Your task to perform on an android device: turn pop-ups off in chrome Image 0: 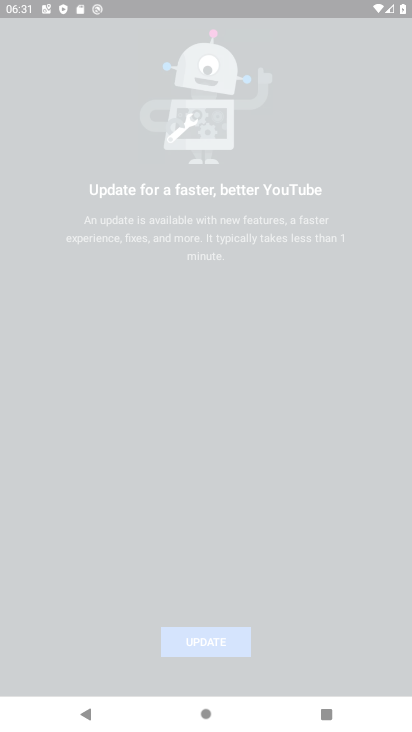
Step 0: click (52, 393)
Your task to perform on an android device: turn pop-ups off in chrome Image 1: 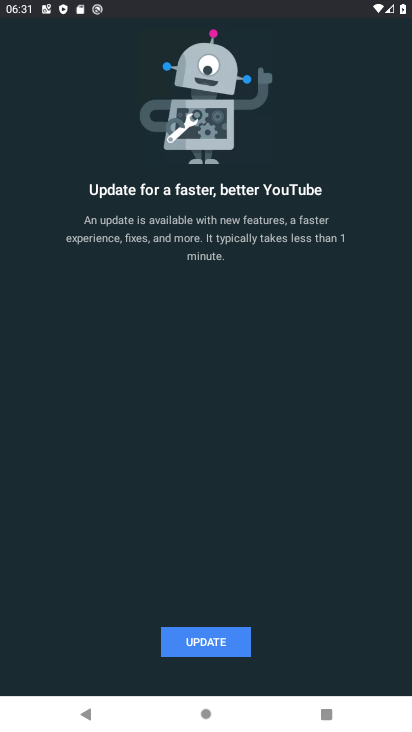
Step 1: press back button
Your task to perform on an android device: turn pop-ups off in chrome Image 2: 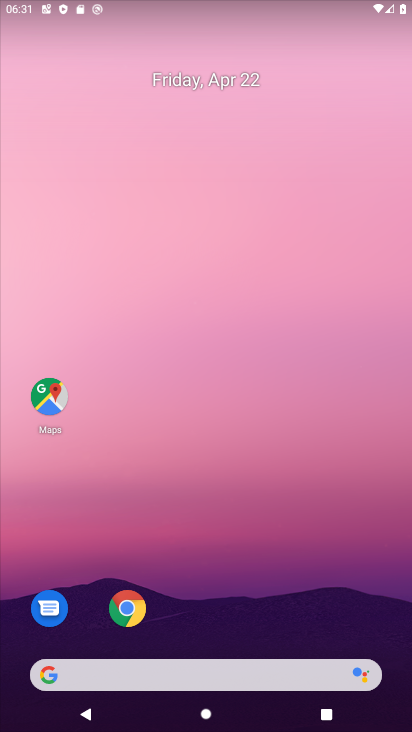
Step 2: click (137, 615)
Your task to perform on an android device: turn pop-ups off in chrome Image 3: 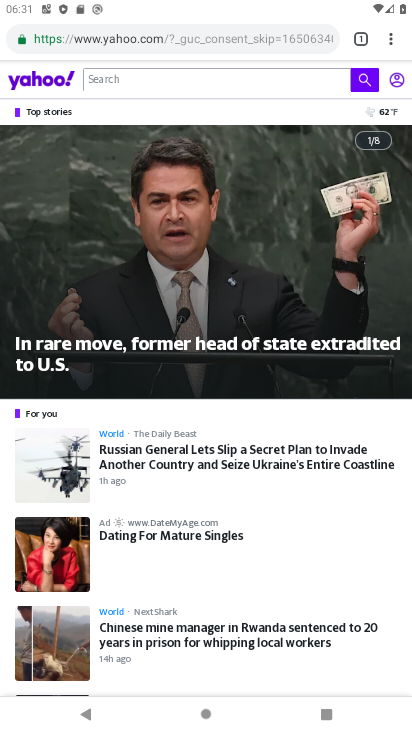
Step 3: click (391, 37)
Your task to perform on an android device: turn pop-ups off in chrome Image 4: 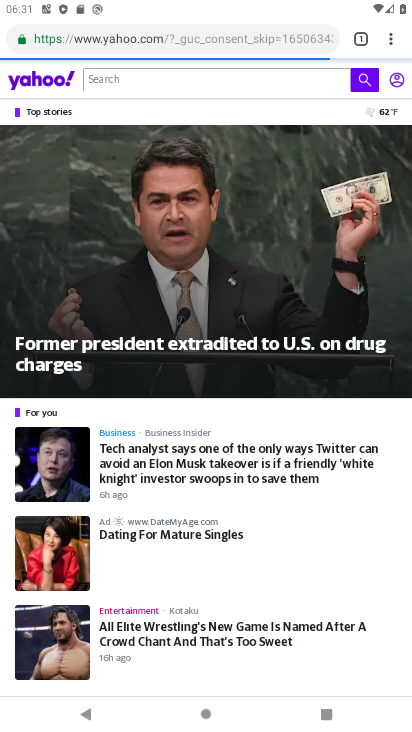
Step 4: click (388, 40)
Your task to perform on an android device: turn pop-ups off in chrome Image 5: 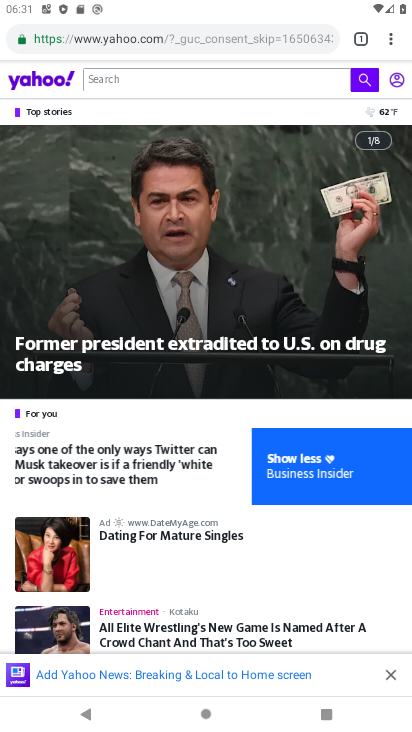
Step 5: click (392, 38)
Your task to perform on an android device: turn pop-ups off in chrome Image 6: 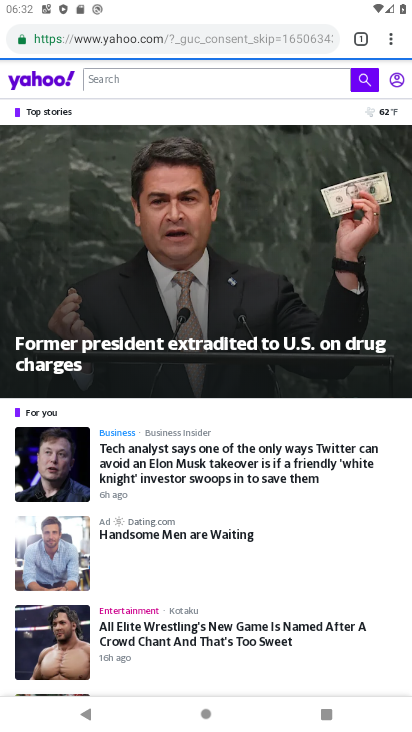
Step 6: click (389, 41)
Your task to perform on an android device: turn pop-ups off in chrome Image 7: 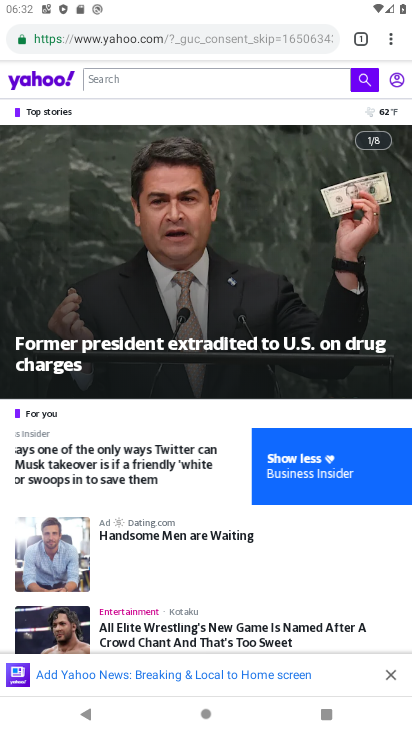
Step 7: click (390, 38)
Your task to perform on an android device: turn pop-ups off in chrome Image 8: 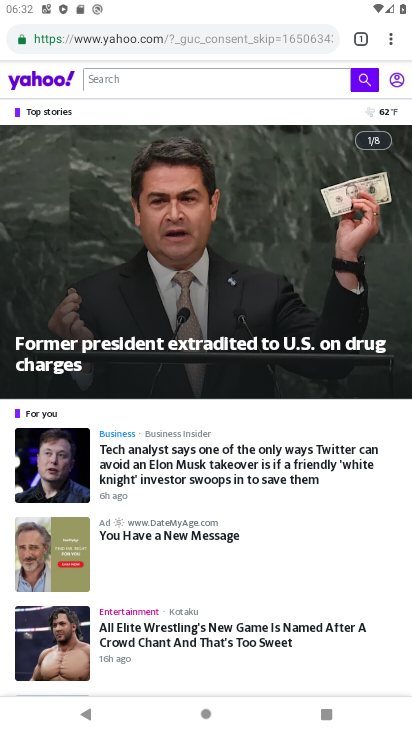
Step 8: click (391, 39)
Your task to perform on an android device: turn pop-ups off in chrome Image 9: 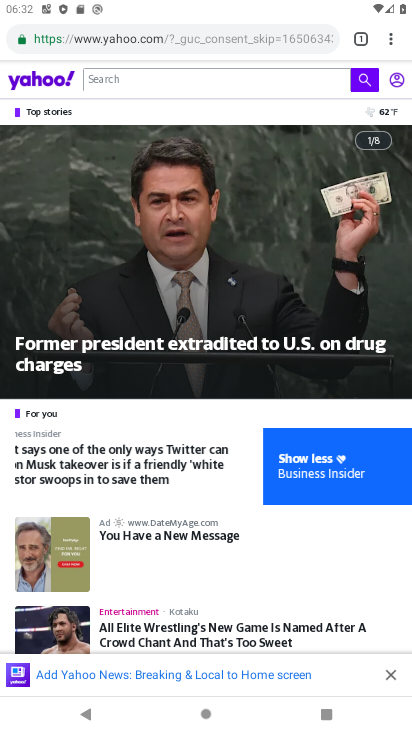
Step 9: click (392, 34)
Your task to perform on an android device: turn pop-ups off in chrome Image 10: 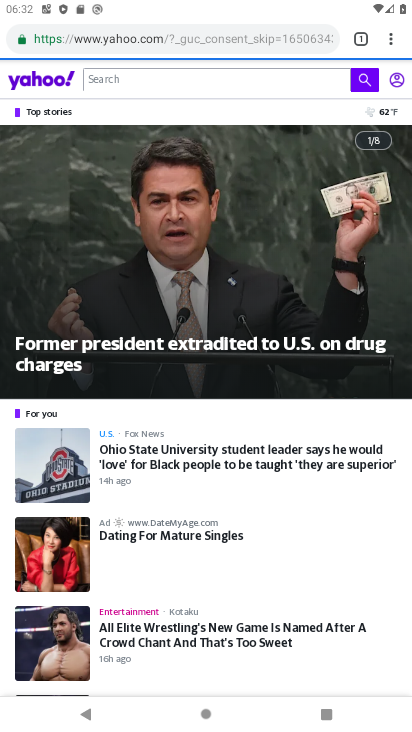
Step 10: click (392, 35)
Your task to perform on an android device: turn pop-ups off in chrome Image 11: 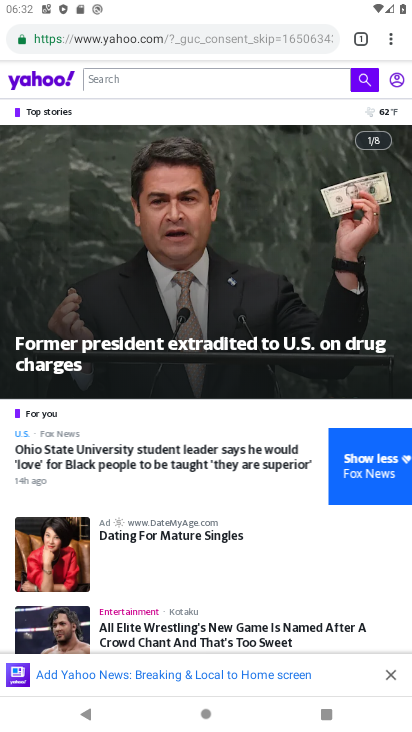
Step 11: click (390, 36)
Your task to perform on an android device: turn pop-ups off in chrome Image 12: 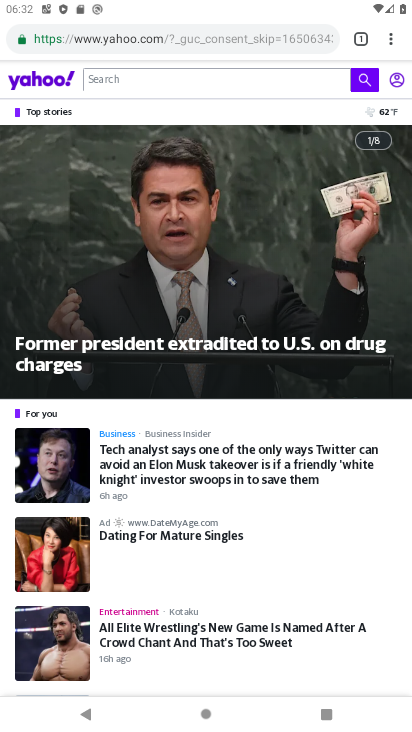
Step 12: click (392, 40)
Your task to perform on an android device: turn pop-ups off in chrome Image 13: 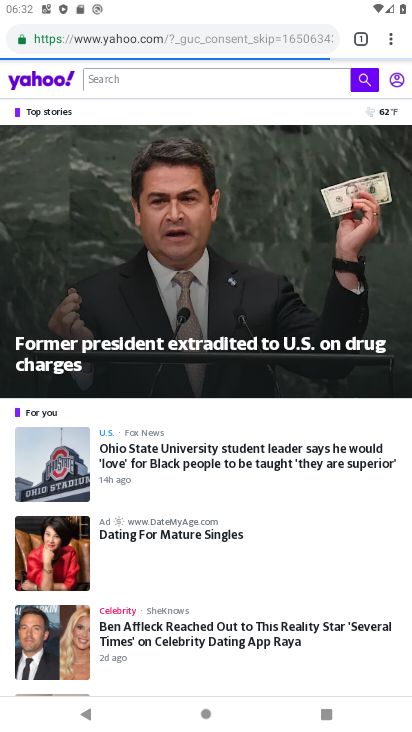
Step 13: click (393, 38)
Your task to perform on an android device: turn pop-ups off in chrome Image 14: 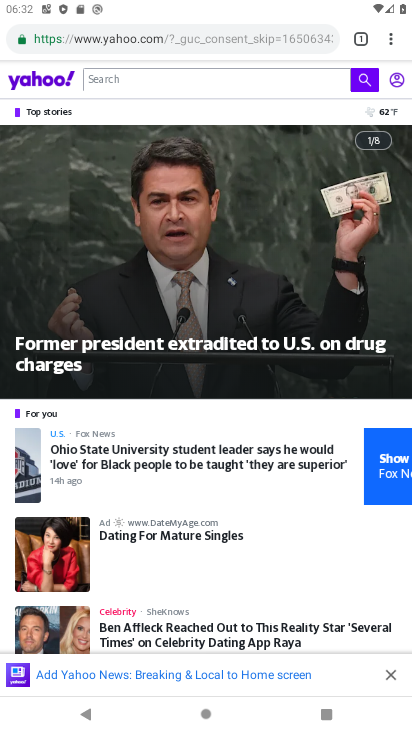
Step 14: click (393, 35)
Your task to perform on an android device: turn pop-ups off in chrome Image 15: 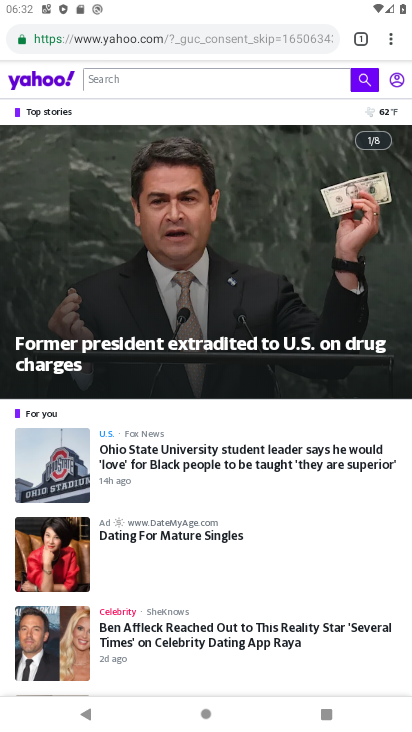
Step 15: click (392, 37)
Your task to perform on an android device: turn pop-ups off in chrome Image 16: 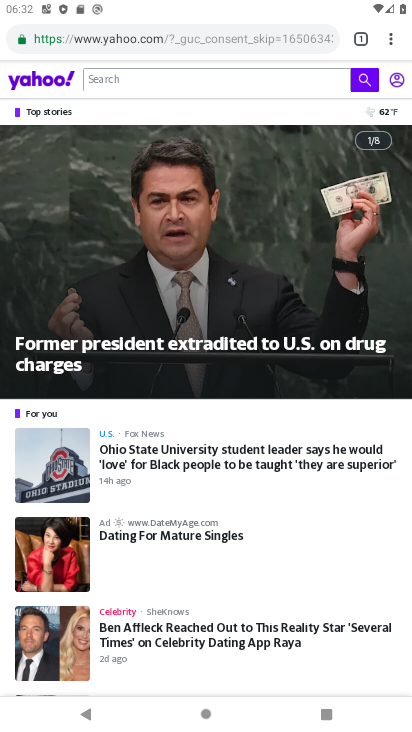
Step 16: click (388, 37)
Your task to perform on an android device: turn pop-ups off in chrome Image 17: 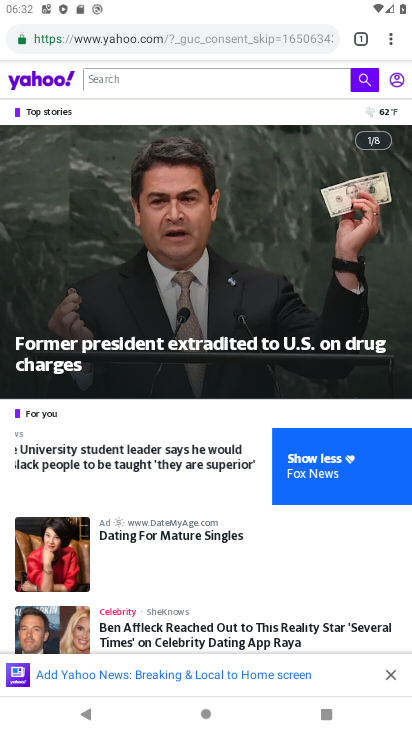
Step 17: click (391, 36)
Your task to perform on an android device: turn pop-ups off in chrome Image 18: 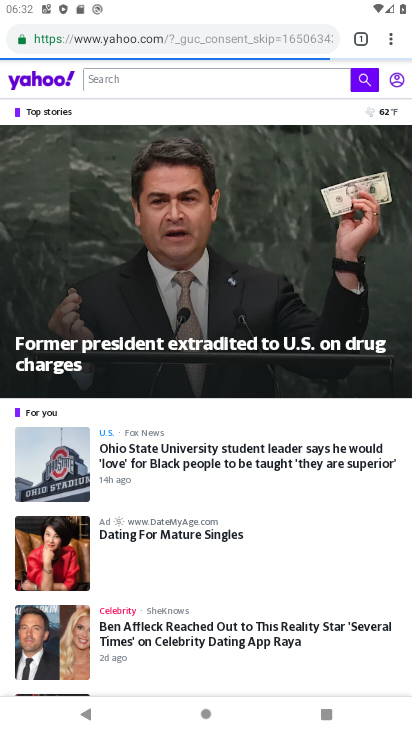
Step 18: click (390, 37)
Your task to perform on an android device: turn pop-ups off in chrome Image 19: 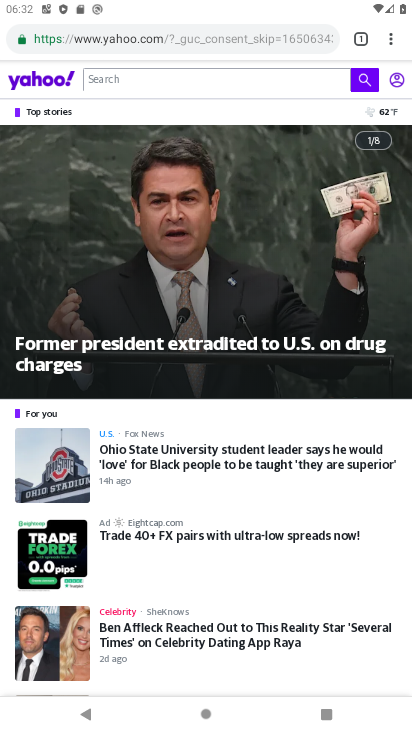
Step 19: click (392, 46)
Your task to perform on an android device: turn pop-ups off in chrome Image 20: 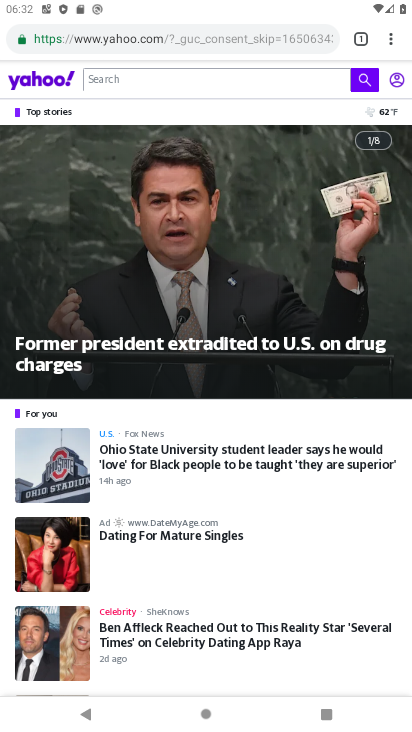
Step 20: click (390, 34)
Your task to perform on an android device: turn pop-ups off in chrome Image 21: 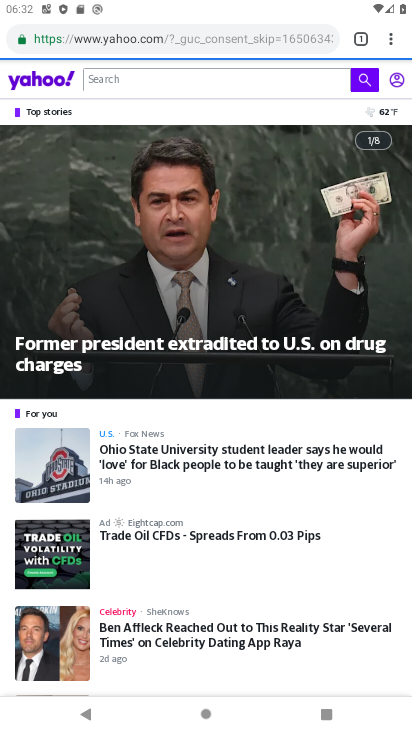
Step 21: click (390, 35)
Your task to perform on an android device: turn pop-ups off in chrome Image 22: 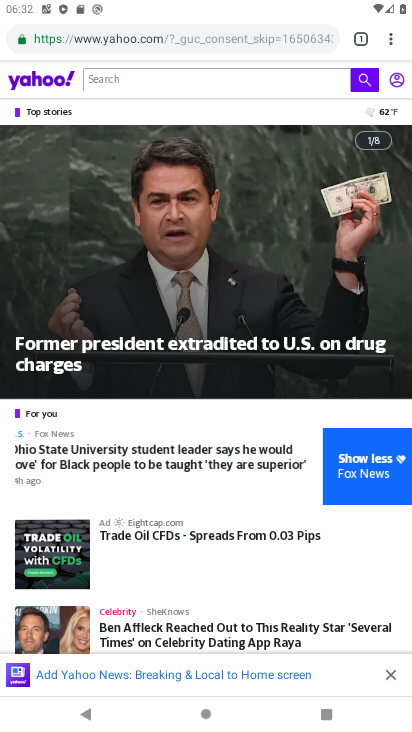
Step 22: click (395, 39)
Your task to perform on an android device: turn pop-ups off in chrome Image 23: 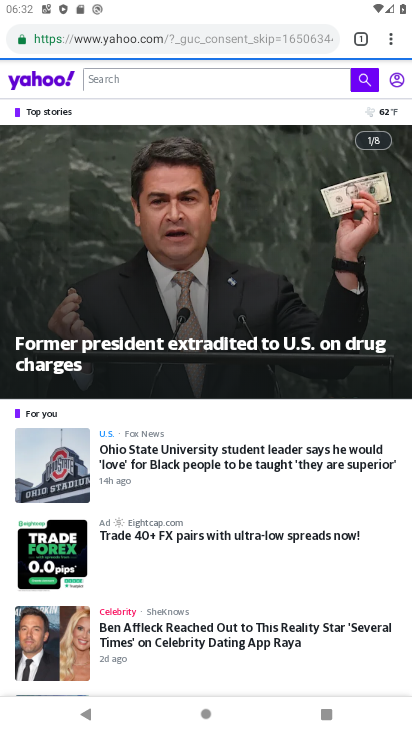
Step 23: click (391, 40)
Your task to perform on an android device: turn pop-ups off in chrome Image 24: 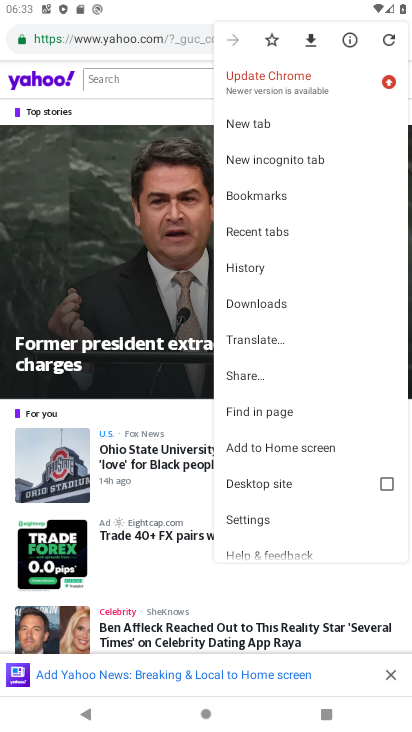
Step 24: click (243, 518)
Your task to perform on an android device: turn pop-ups off in chrome Image 25: 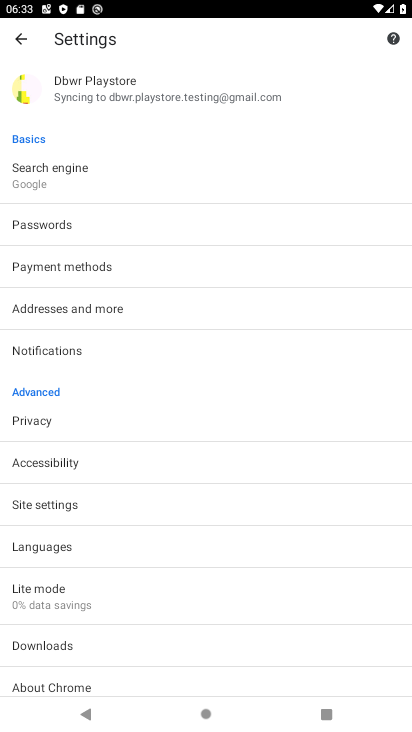
Step 25: drag from (48, 636) to (144, 432)
Your task to perform on an android device: turn pop-ups off in chrome Image 26: 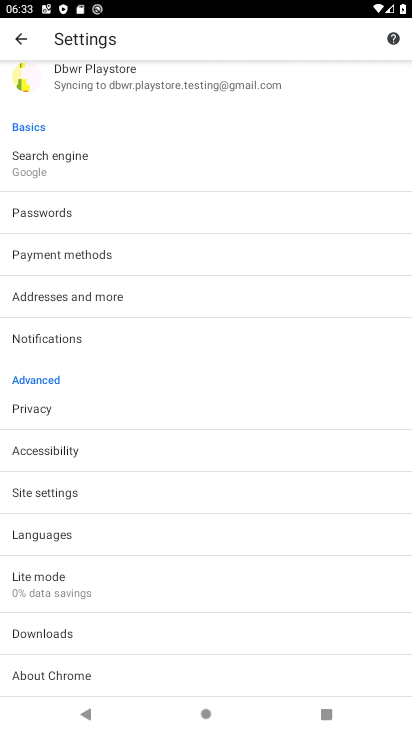
Step 26: click (37, 495)
Your task to perform on an android device: turn pop-ups off in chrome Image 27: 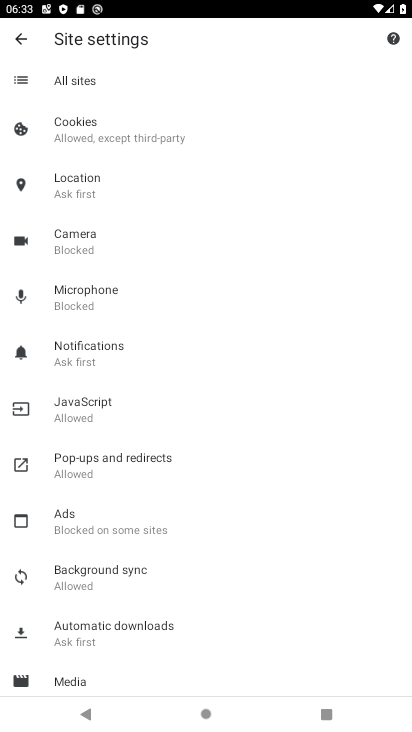
Step 27: click (79, 474)
Your task to perform on an android device: turn pop-ups off in chrome Image 28: 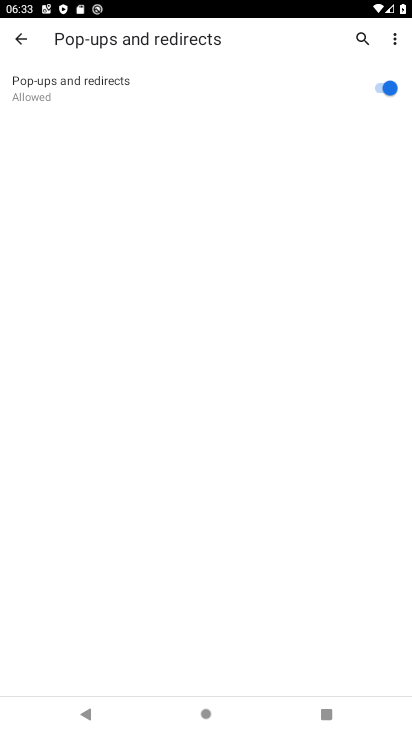
Step 28: click (377, 91)
Your task to perform on an android device: turn pop-ups off in chrome Image 29: 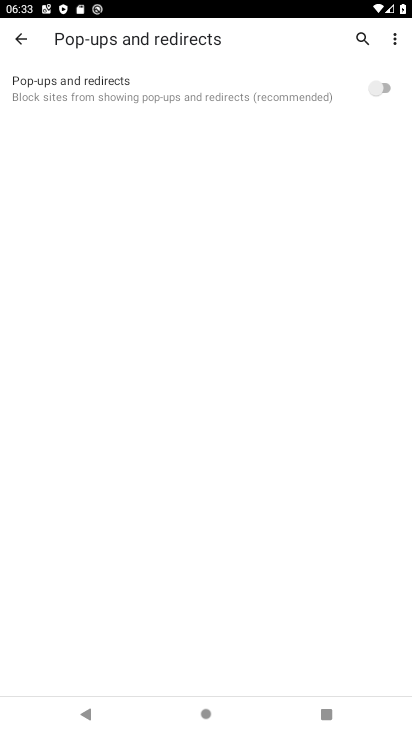
Step 29: task complete